Your task to perform on an android device: Open settings on Google Maps Image 0: 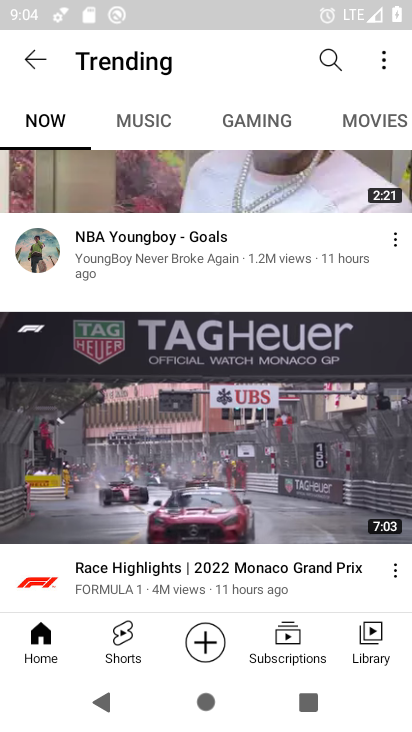
Step 0: press home button
Your task to perform on an android device: Open settings on Google Maps Image 1: 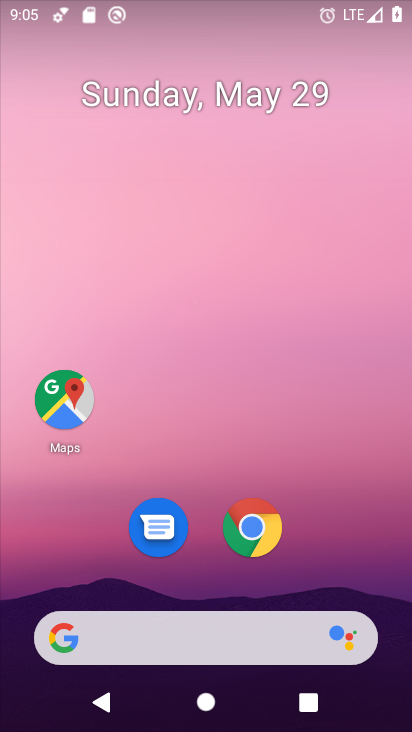
Step 1: click (62, 395)
Your task to perform on an android device: Open settings on Google Maps Image 2: 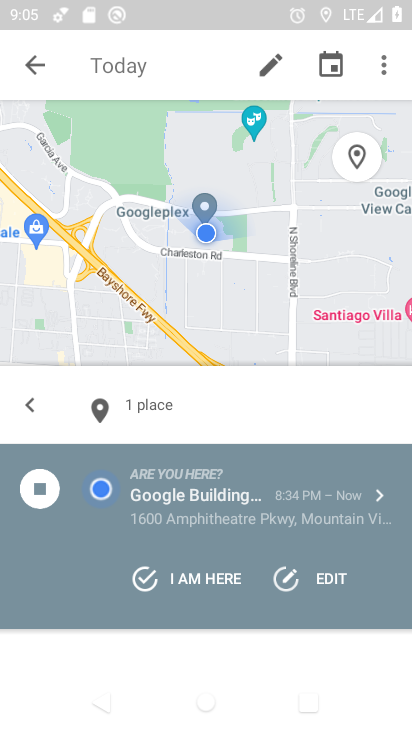
Step 2: click (34, 65)
Your task to perform on an android device: Open settings on Google Maps Image 3: 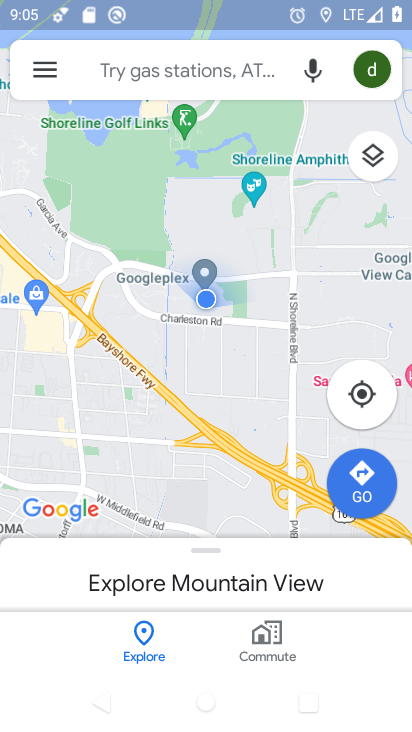
Step 3: click (39, 68)
Your task to perform on an android device: Open settings on Google Maps Image 4: 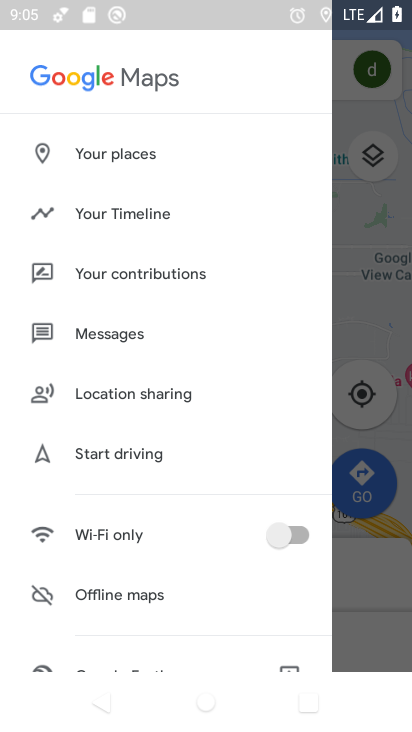
Step 4: drag from (168, 580) to (169, 1)
Your task to perform on an android device: Open settings on Google Maps Image 5: 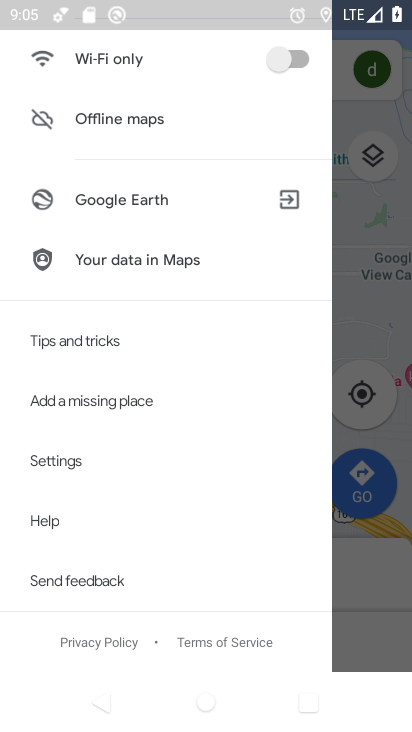
Step 5: click (88, 447)
Your task to perform on an android device: Open settings on Google Maps Image 6: 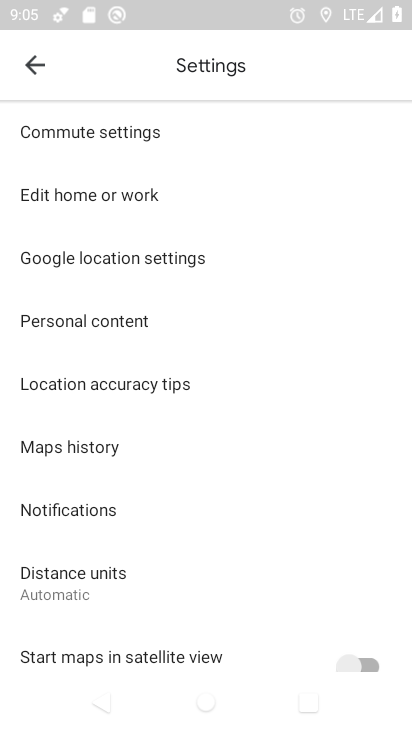
Step 6: task complete